Your task to perform on an android device: Open Android settings Image 0: 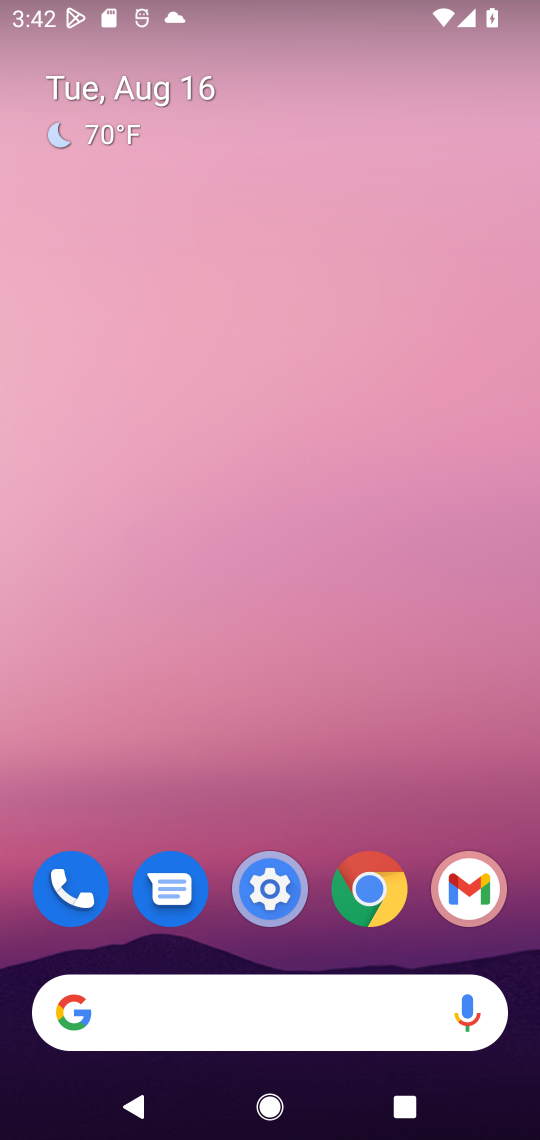
Step 0: click (253, 900)
Your task to perform on an android device: Open Android settings Image 1: 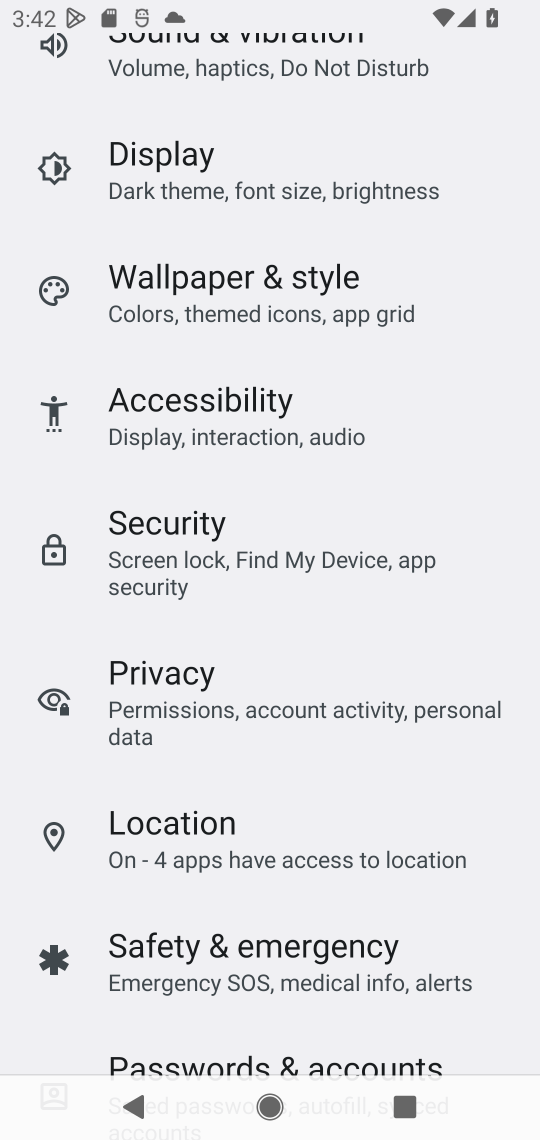
Step 1: task complete